Your task to perform on an android device: What's the weather? Image 0: 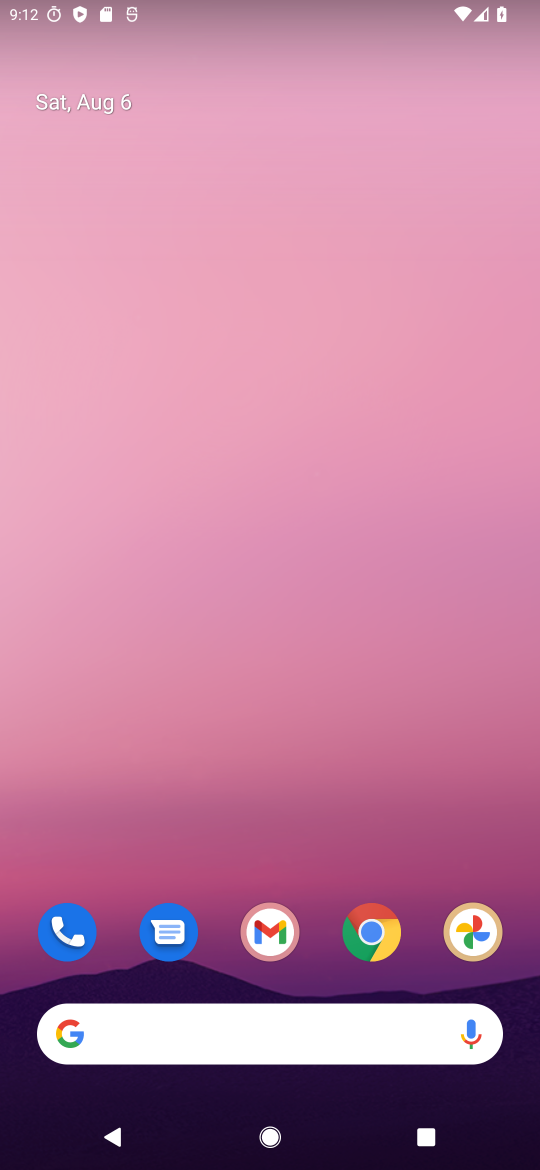
Step 0: click (206, 1024)
Your task to perform on an android device: What's the weather? Image 1: 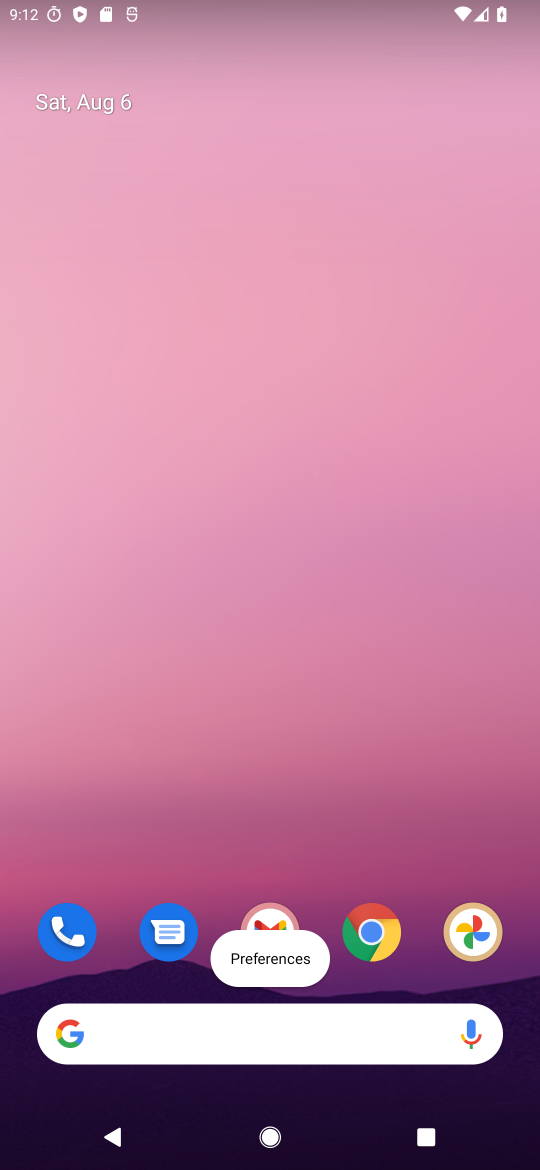
Step 1: click (207, 1040)
Your task to perform on an android device: What's the weather? Image 2: 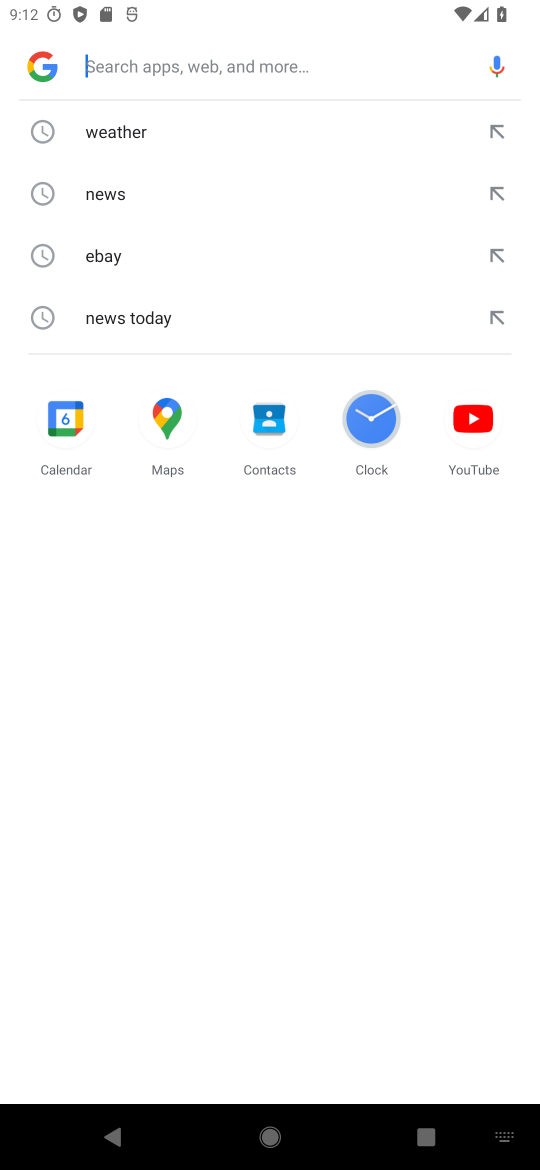
Step 2: click (125, 129)
Your task to perform on an android device: What's the weather? Image 3: 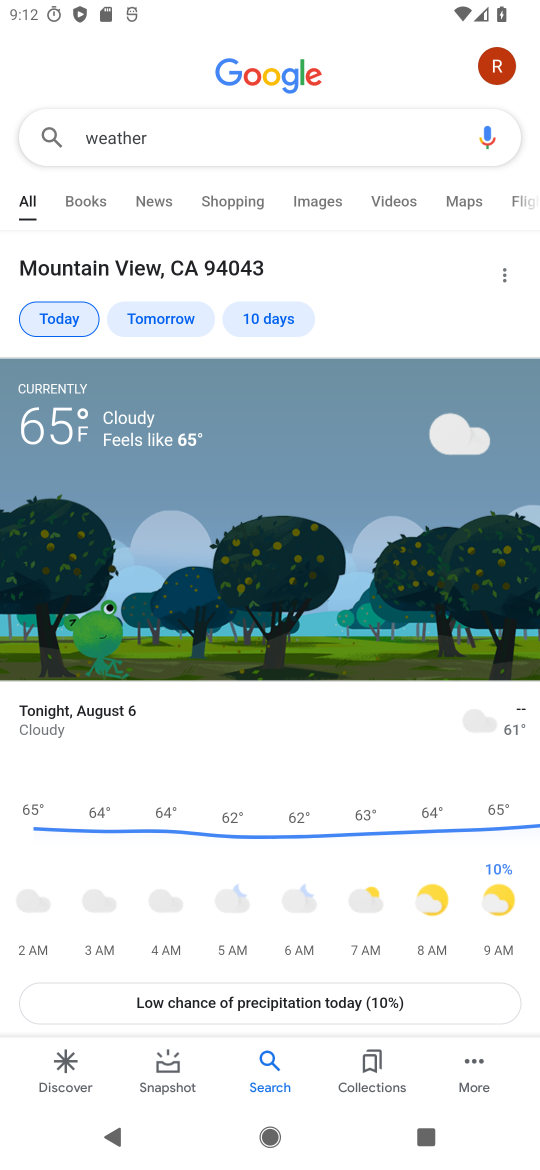
Step 3: task complete